Your task to perform on an android device: turn notification dots on Image 0: 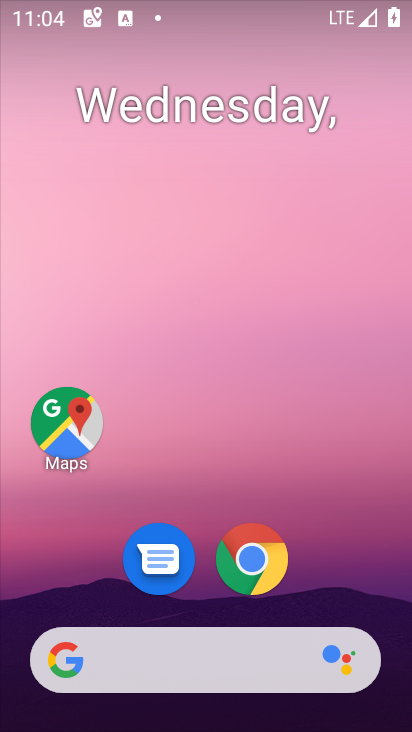
Step 0: drag from (300, 614) to (346, 150)
Your task to perform on an android device: turn notification dots on Image 1: 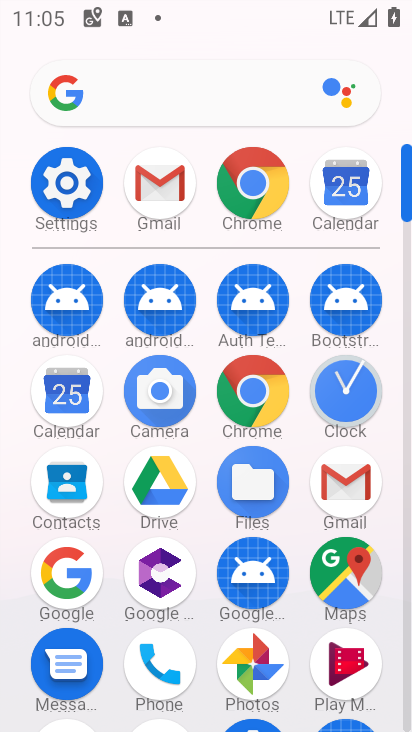
Step 1: click (79, 192)
Your task to perform on an android device: turn notification dots on Image 2: 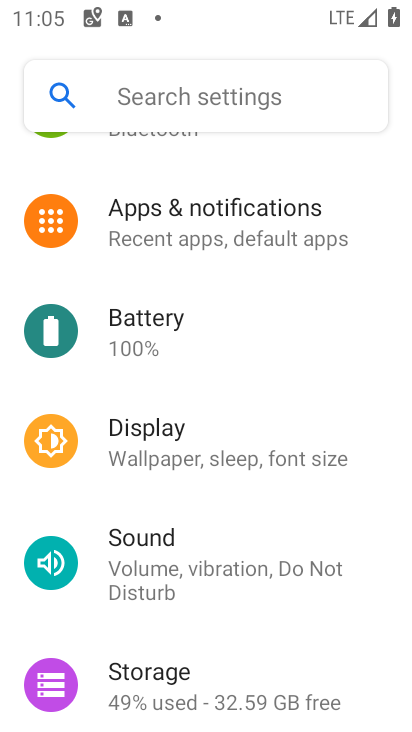
Step 2: click (180, 226)
Your task to perform on an android device: turn notification dots on Image 3: 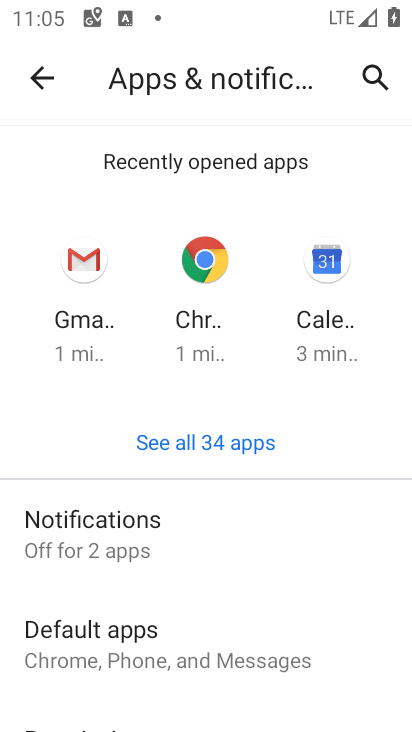
Step 3: click (134, 524)
Your task to perform on an android device: turn notification dots on Image 4: 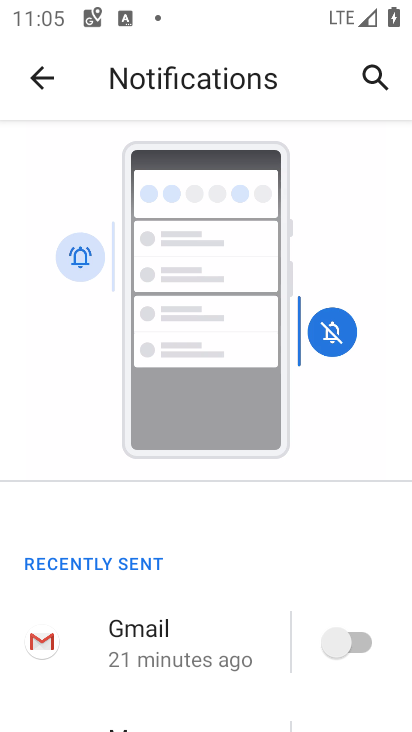
Step 4: drag from (112, 532) to (192, 85)
Your task to perform on an android device: turn notification dots on Image 5: 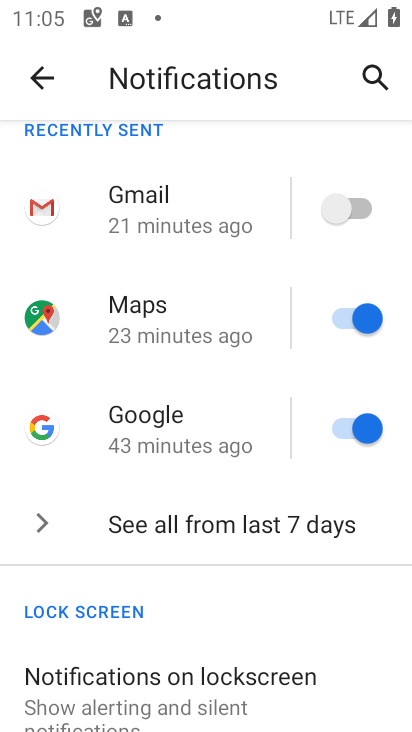
Step 5: drag from (142, 604) to (186, 53)
Your task to perform on an android device: turn notification dots on Image 6: 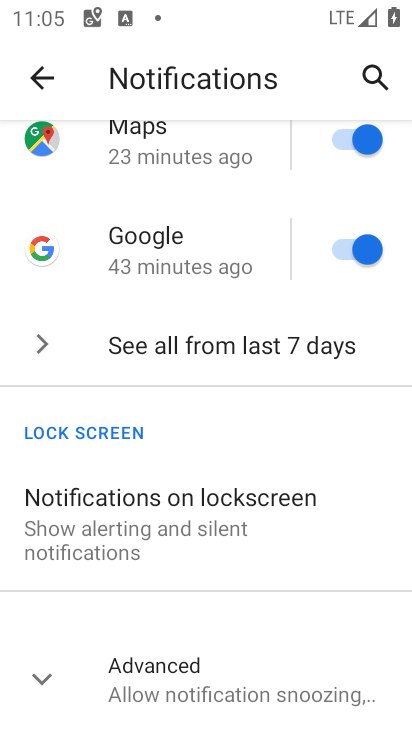
Step 6: click (248, 689)
Your task to perform on an android device: turn notification dots on Image 7: 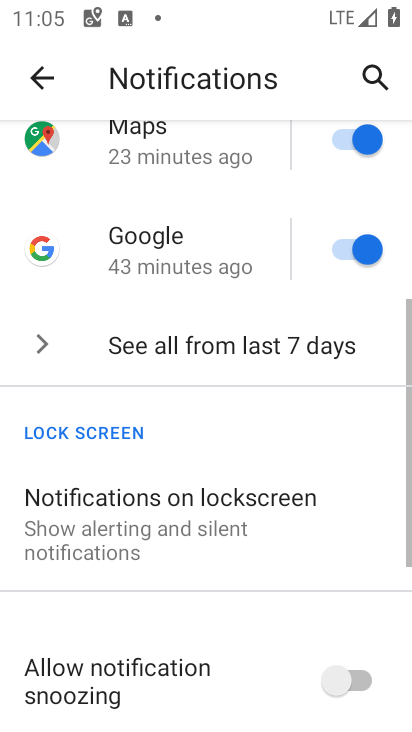
Step 7: task complete